Your task to perform on an android device: open a bookmark in the chrome app Image 0: 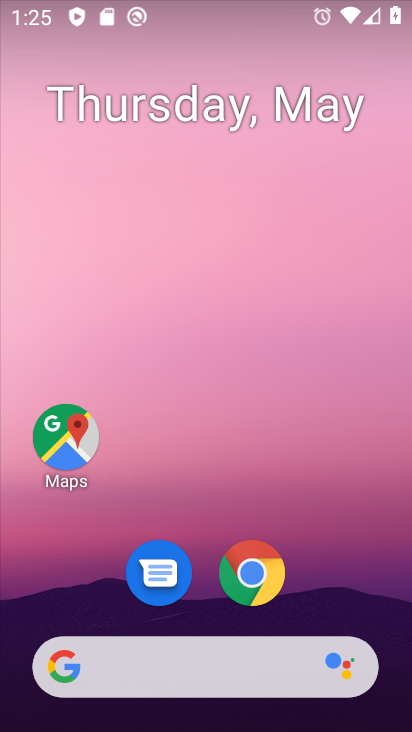
Step 0: click (262, 572)
Your task to perform on an android device: open a bookmark in the chrome app Image 1: 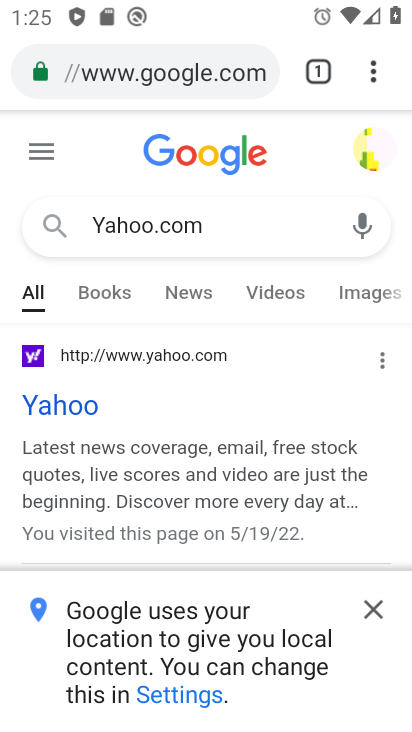
Step 1: click (375, 67)
Your task to perform on an android device: open a bookmark in the chrome app Image 2: 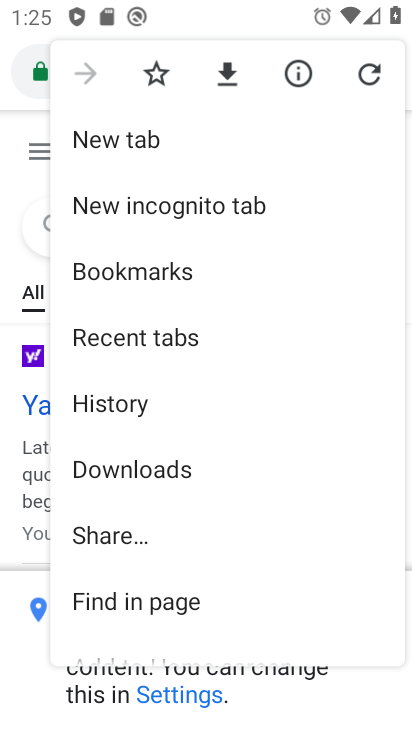
Step 2: click (108, 272)
Your task to perform on an android device: open a bookmark in the chrome app Image 3: 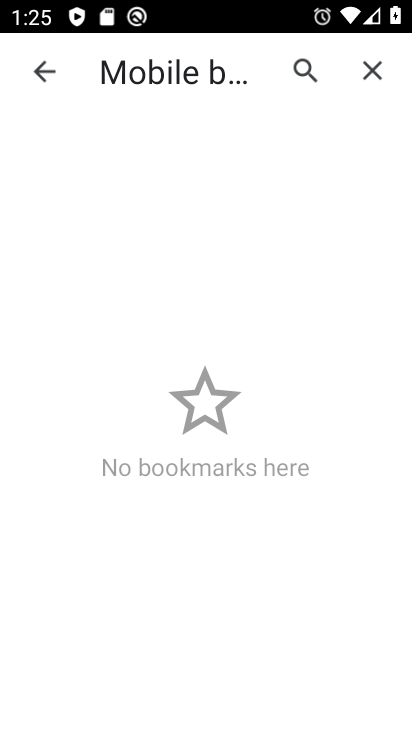
Step 3: task complete